Your task to perform on an android device: Go to ESPN.com Image 0: 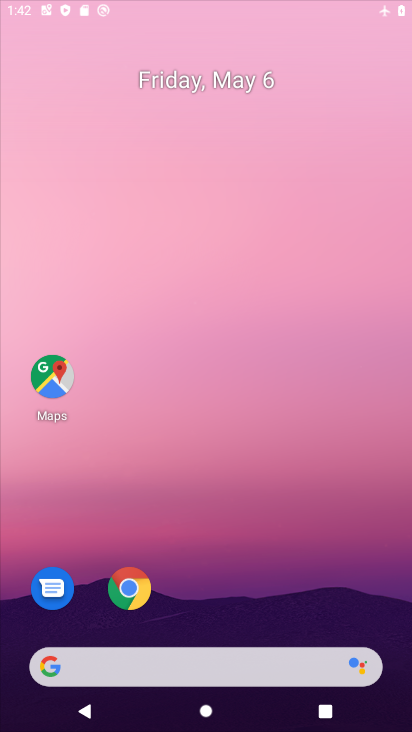
Step 0: click (248, 29)
Your task to perform on an android device: Go to ESPN.com Image 1: 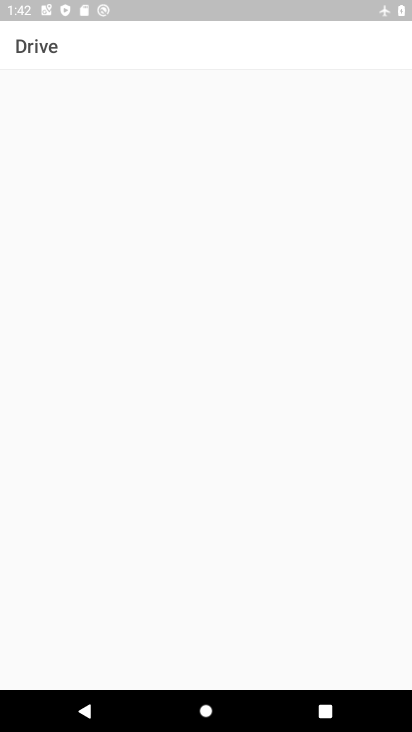
Step 1: press home button
Your task to perform on an android device: Go to ESPN.com Image 2: 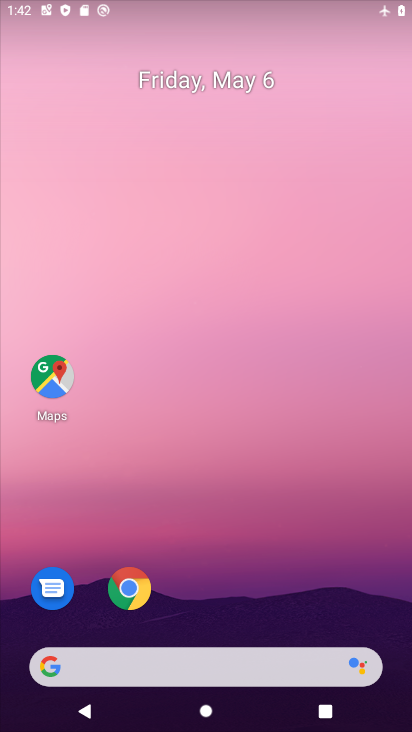
Step 2: drag from (314, 512) to (304, 141)
Your task to perform on an android device: Go to ESPN.com Image 3: 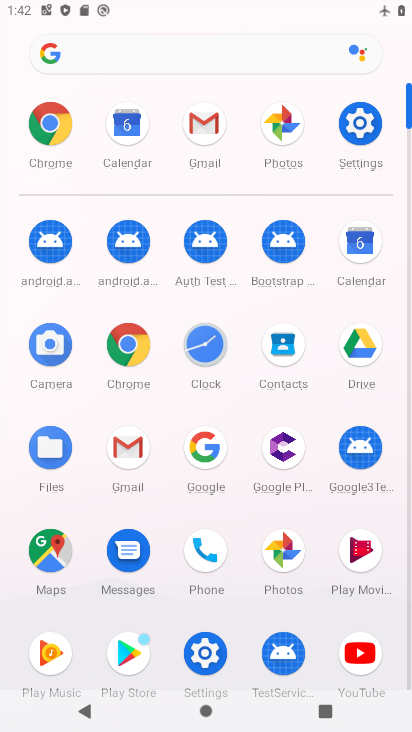
Step 3: click (138, 346)
Your task to perform on an android device: Go to ESPN.com Image 4: 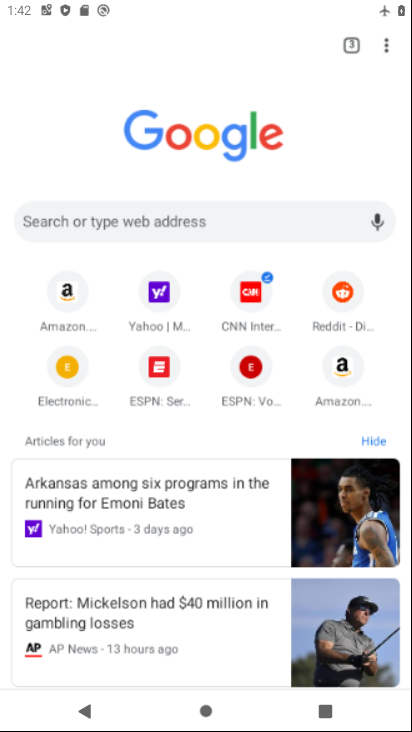
Step 4: click (156, 221)
Your task to perform on an android device: Go to ESPN.com Image 5: 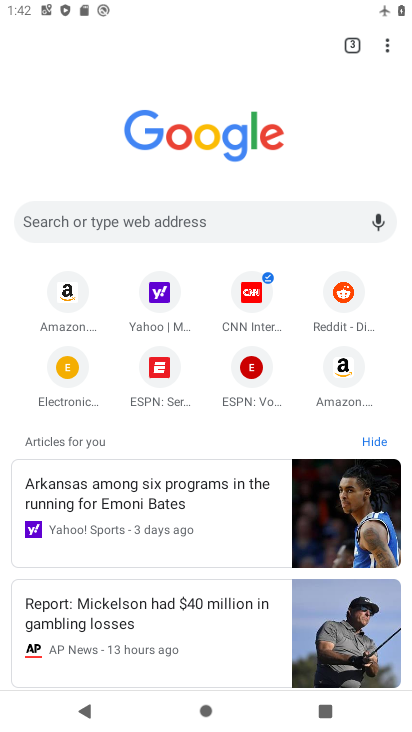
Step 5: click (237, 209)
Your task to perform on an android device: Go to ESPN.com Image 6: 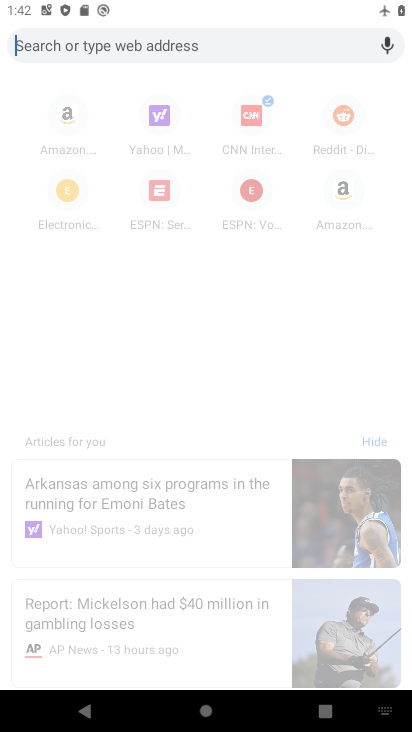
Step 6: type "espn.com"
Your task to perform on an android device: Go to ESPN.com Image 7: 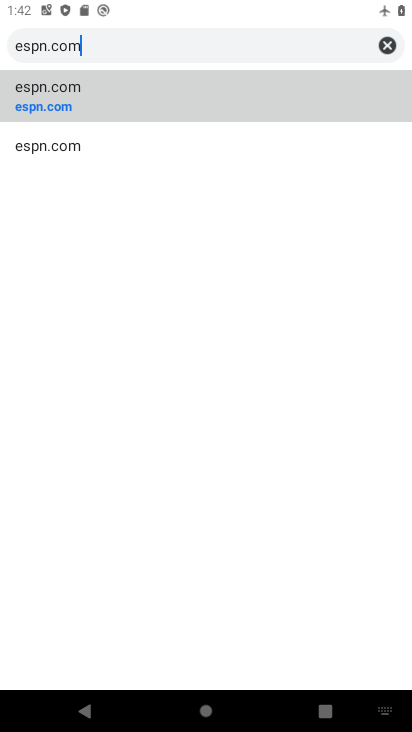
Step 7: click (51, 118)
Your task to perform on an android device: Go to ESPN.com Image 8: 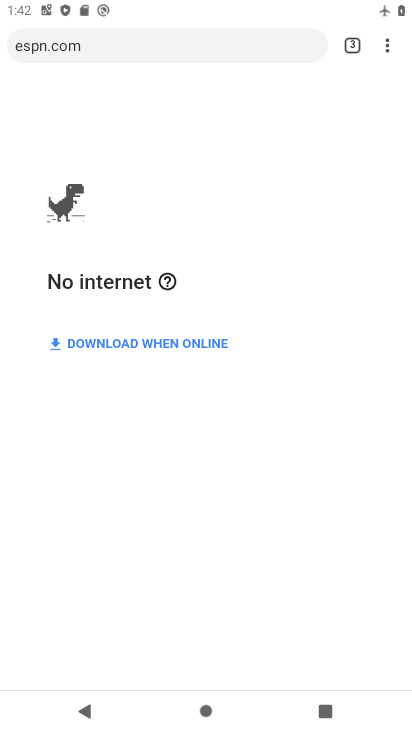
Step 8: task complete